Your task to perform on an android device: Go to Reddit.com Image 0: 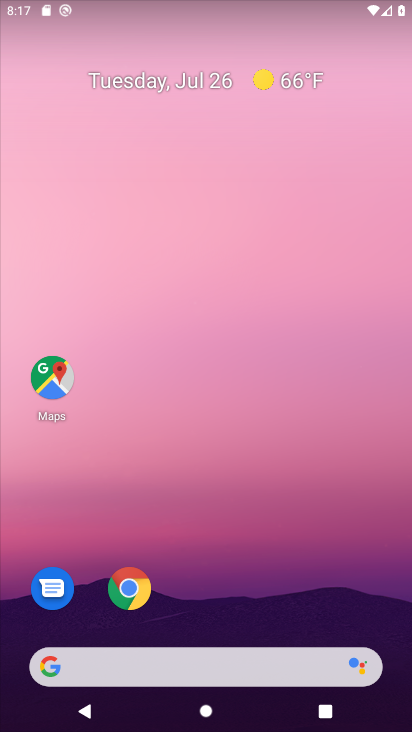
Step 0: drag from (223, 719) to (220, 257)
Your task to perform on an android device: Go to Reddit.com Image 1: 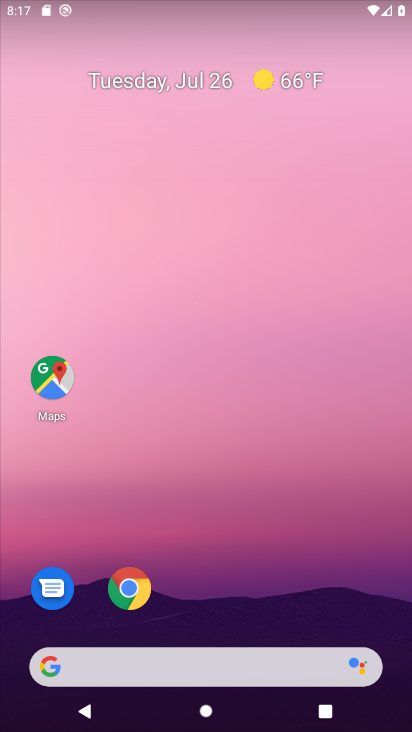
Step 1: click (129, 586)
Your task to perform on an android device: Go to Reddit.com Image 2: 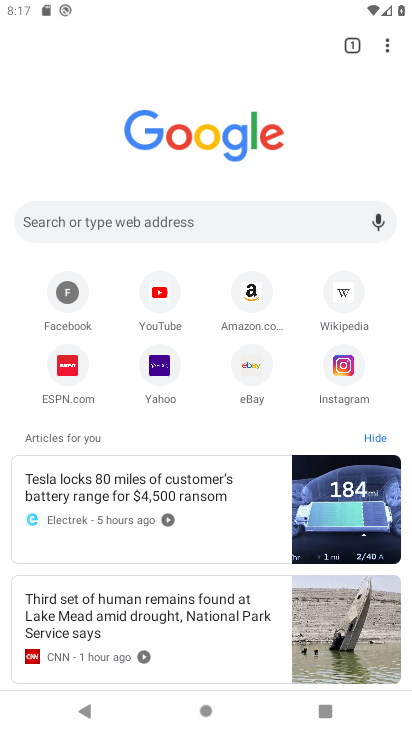
Step 2: click (224, 220)
Your task to perform on an android device: Go to Reddit.com Image 3: 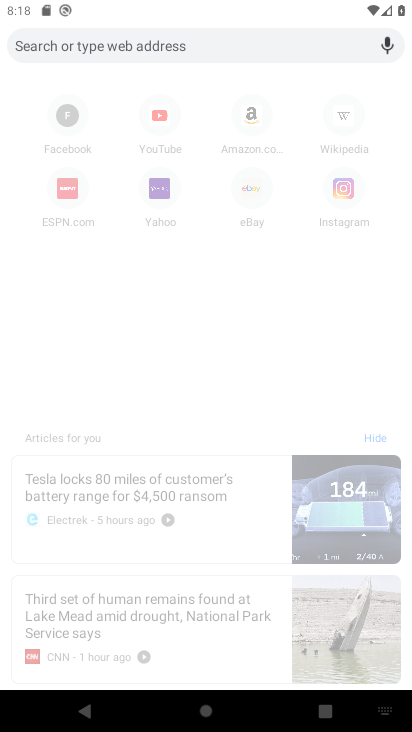
Step 3: type "Reddit.com"
Your task to perform on an android device: Go to Reddit.com Image 4: 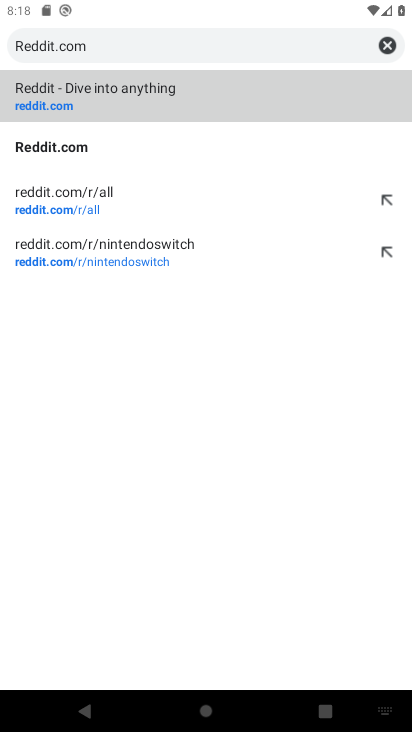
Step 4: click (48, 143)
Your task to perform on an android device: Go to Reddit.com Image 5: 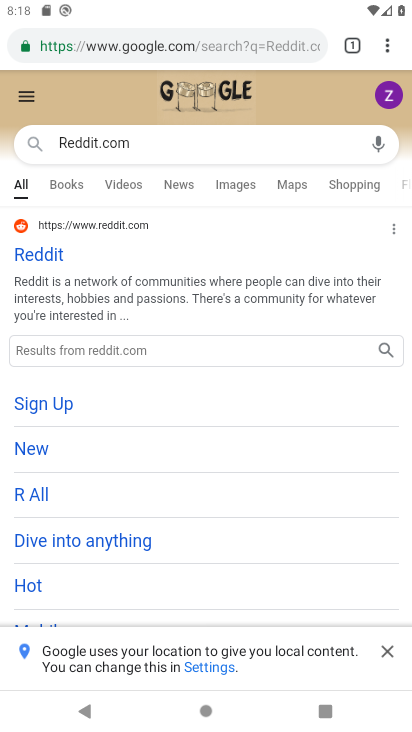
Step 5: click (39, 250)
Your task to perform on an android device: Go to Reddit.com Image 6: 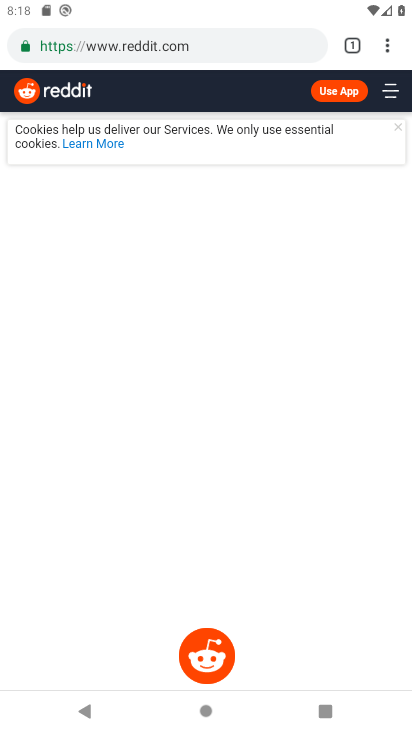
Step 6: task complete